Your task to perform on an android device: turn off airplane mode Image 0: 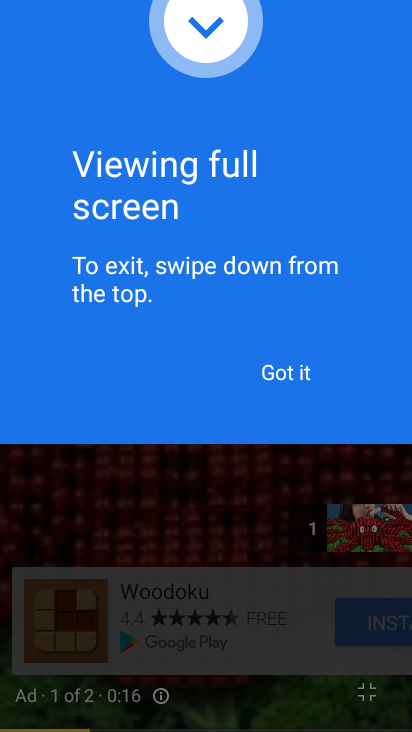
Step 0: click (285, 372)
Your task to perform on an android device: turn off airplane mode Image 1: 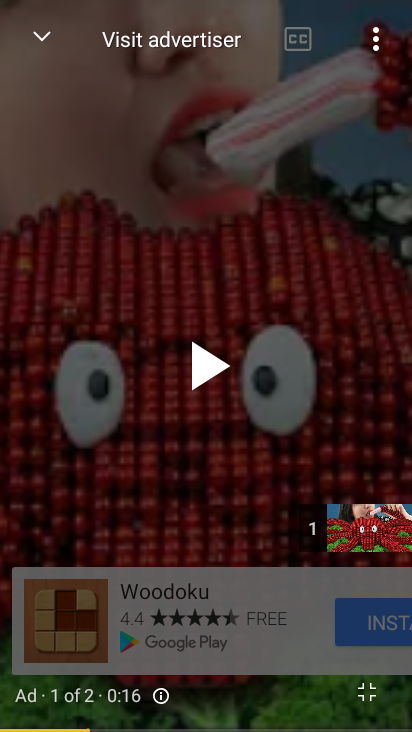
Step 1: press home button
Your task to perform on an android device: turn off airplane mode Image 2: 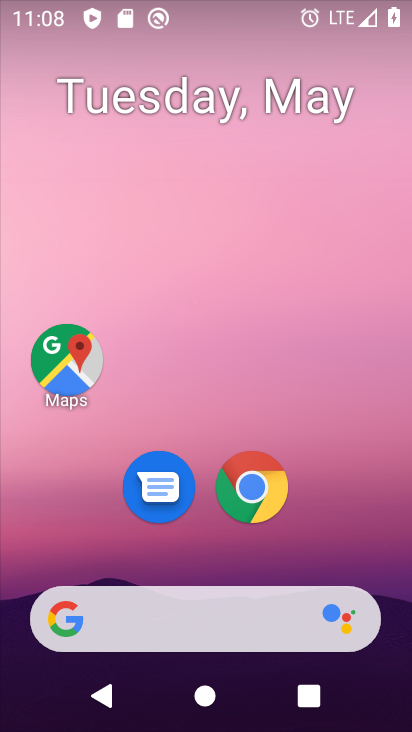
Step 2: drag from (186, 535) to (173, 7)
Your task to perform on an android device: turn off airplane mode Image 3: 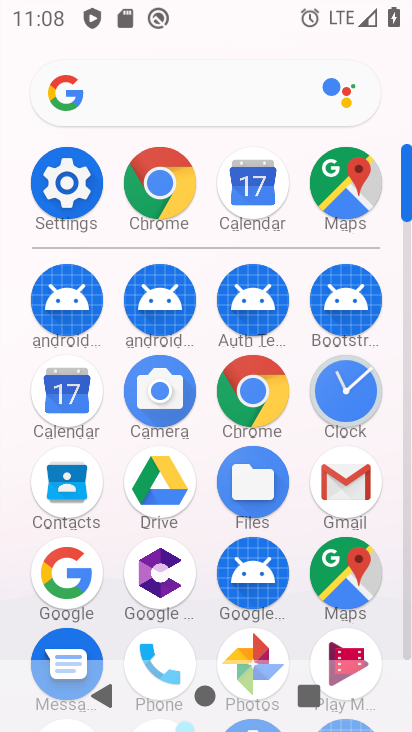
Step 3: click (59, 230)
Your task to perform on an android device: turn off airplane mode Image 4: 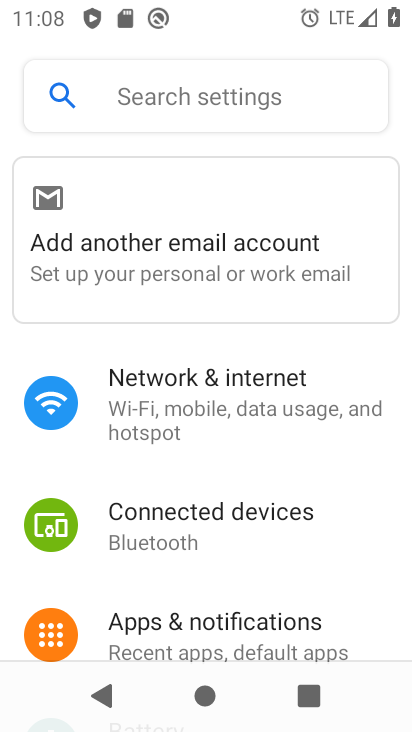
Step 4: click (189, 373)
Your task to perform on an android device: turn off airplane mode Image 5: 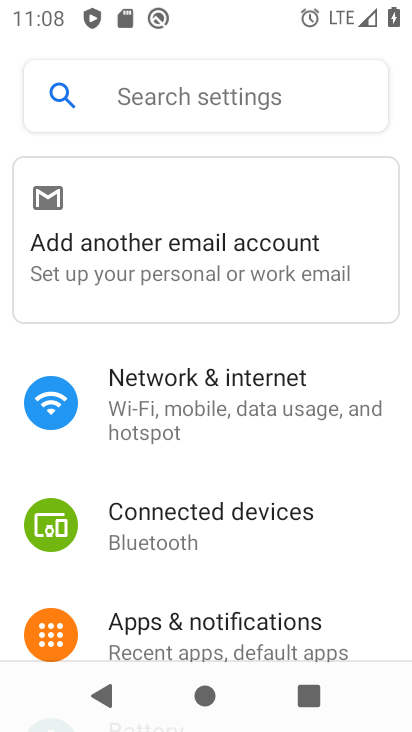
Step 5: click (189, 373)
Your task to perform on an android device: turn off airplane mode Image 6: 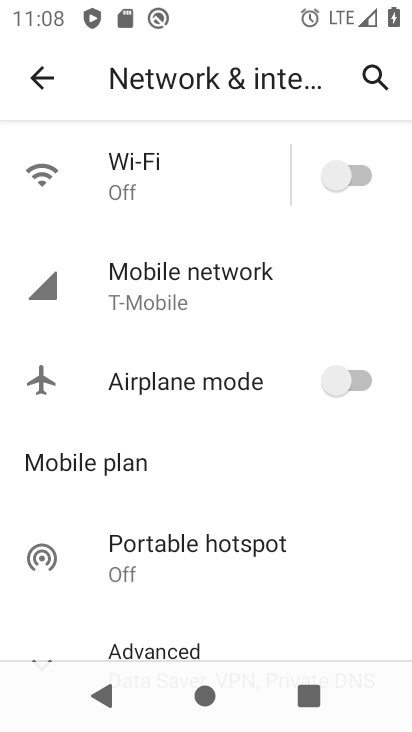
Step 6: task complete